Your task to perform on an android device: Go to display settings Image 0: 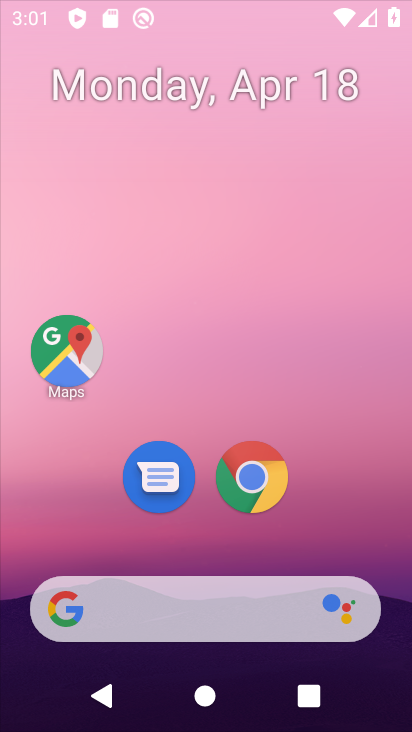
Step 0: click (302, 32)
Your task to perform on an android device: Go to display settings Image 1: 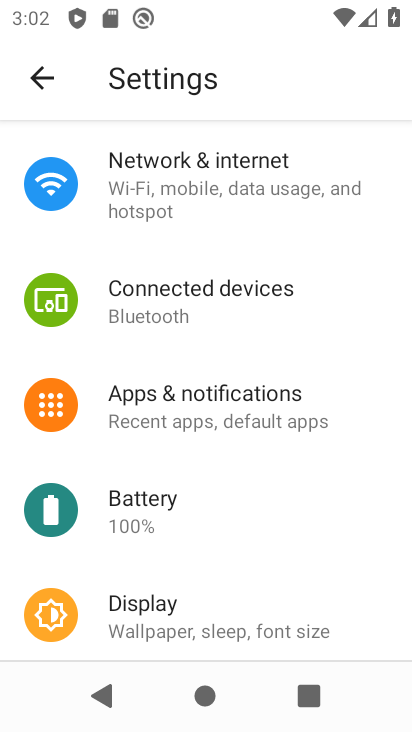
Step 1: click (233, 607)
Your task to perform on an android device: Go to display settings Image 2: 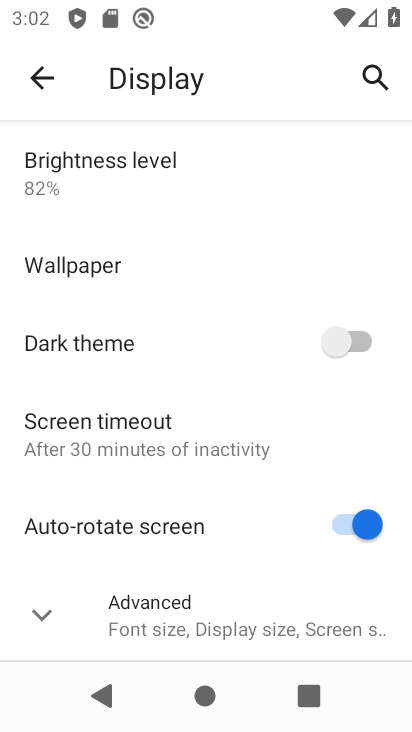
Step 2: click (76, 605)
Your task to perform on an android device: Go to display settings Image 3: 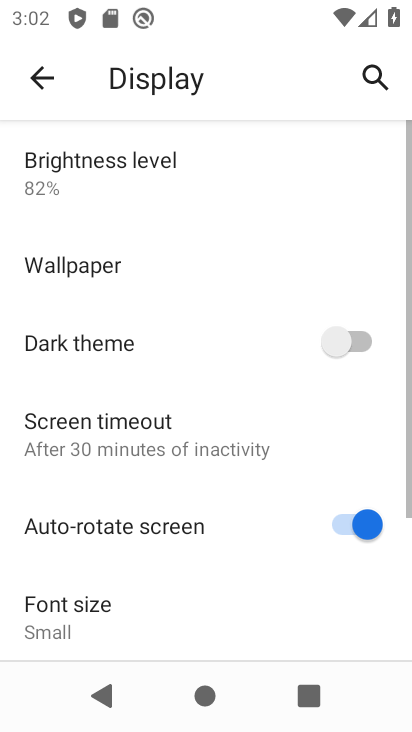
Step 3: task complete